Your task to perform on an android device: Open the calendar and show me this week's events? Image 0: 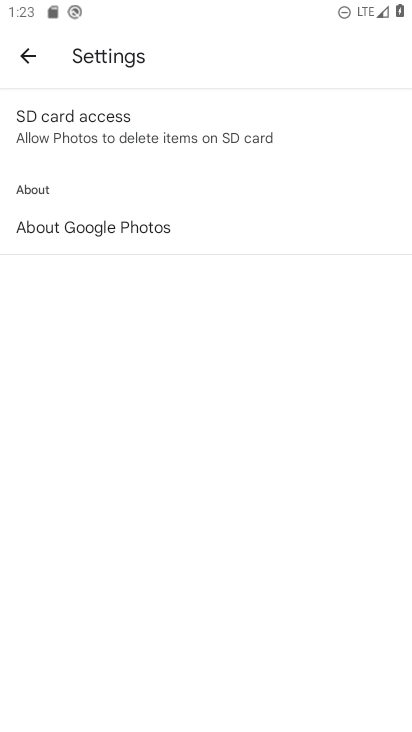
Step 0: press home button
Your task to perform on an android device: Open the calendar and show me this week's events? Image 1: 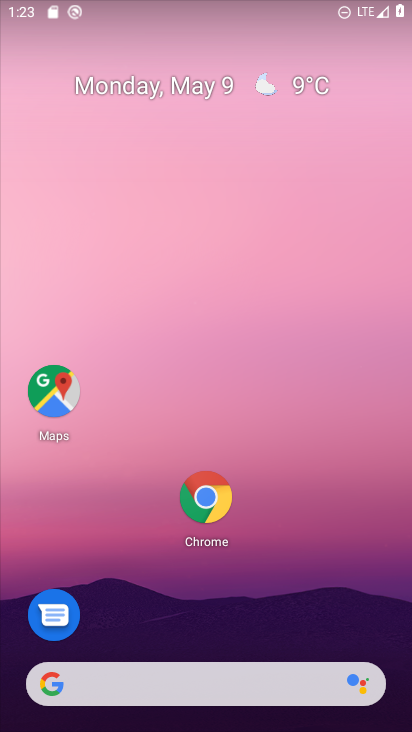
Step 1: drag from (332, 589) to (283, 190)
Your task to perform on an android device: Open the calendar and show me this week's events? Image 2: 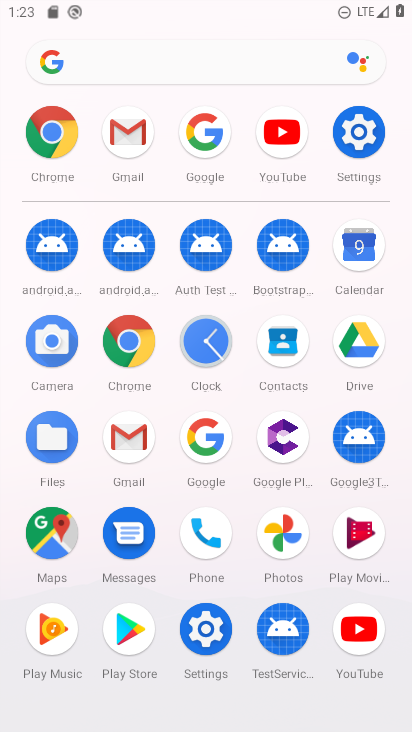
Step 2: click (371, 247)
Your task to perform on an android device: Open the calendar and show me this week's events? Image 3: 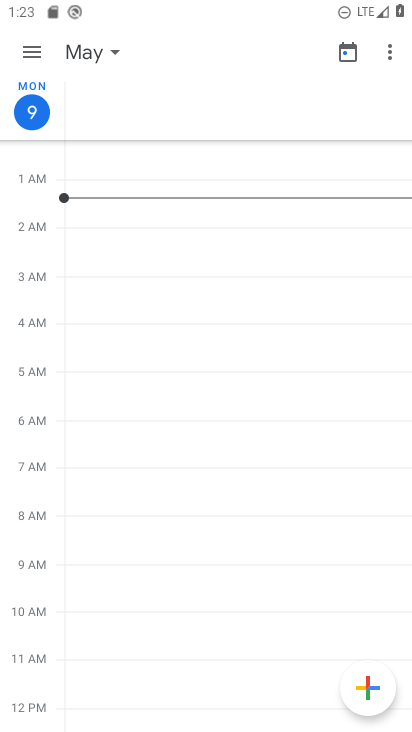
Step 3: click (25, 55)
Your task to perform on an android device: Open the calendar and show me this week's events? Image 4: 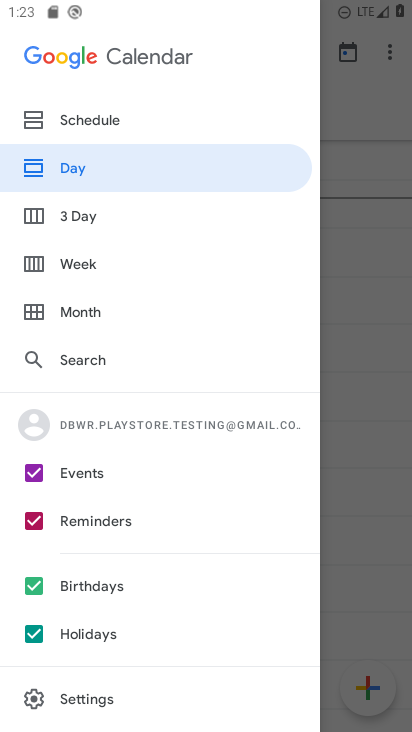
Step 4: click (99, 262)
Your task to perform on an android device: Open the calendar and show me this week's events? Image 5: 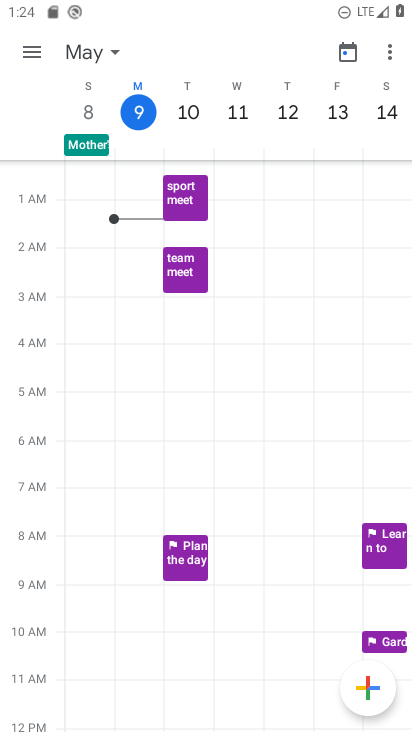
Step 5: task complete